Your task to perform on an android device: see tabs open on other devices in the chrome app Image 0: 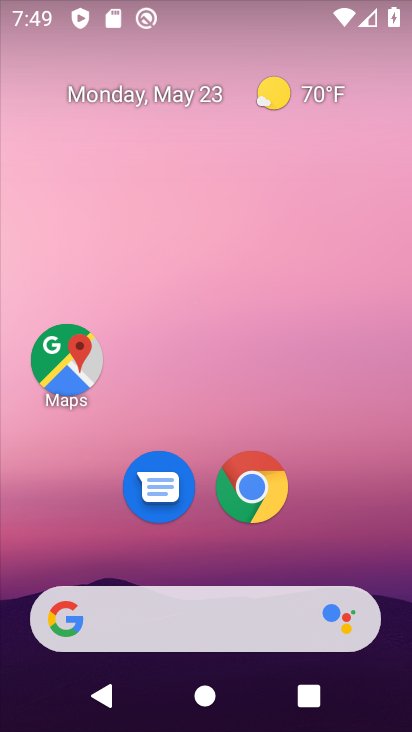
Step 0: drag from (178, 587) to (233, 126)
Your task to perform on an android device: see tabs open on other devices in the chrome app Image 1: 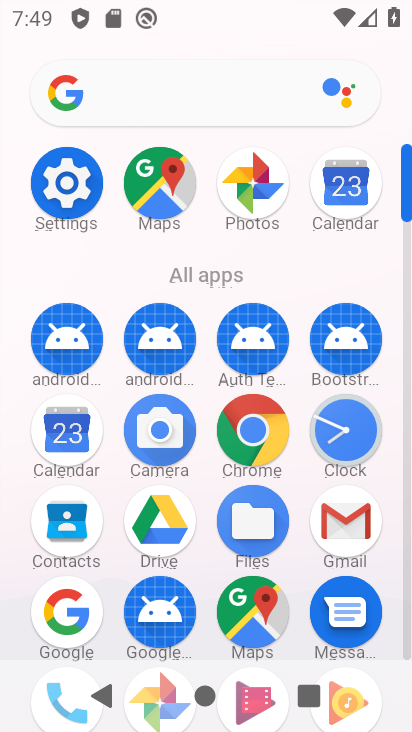
Step 1: click (248, 428)
Your task to perform on an android device: see tabs open on other devices in the chrome app Image 2: 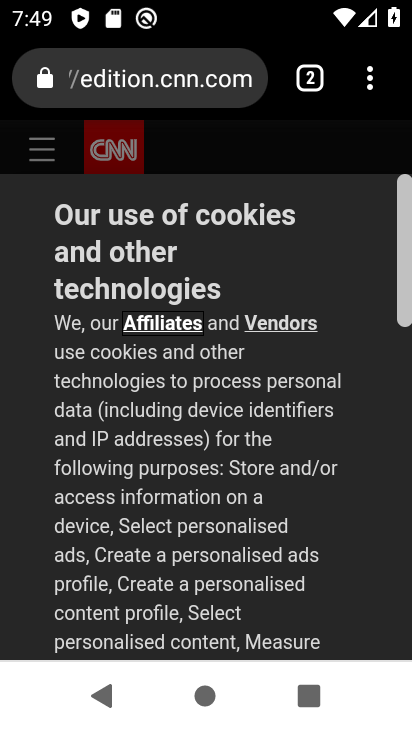
Step 2: click (311, 81)
Your task to perform on an android device: see tabs open on other devices in the chrome app Image 3: 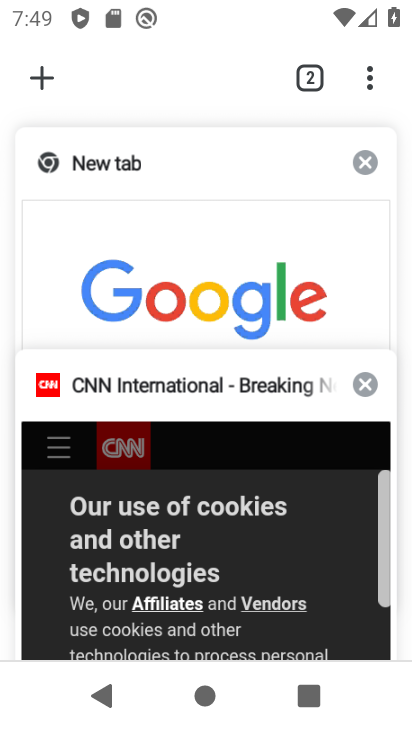
Step 3: task complete